Your task to perform on an android device: delete browsing data in the chrome app Image 0: 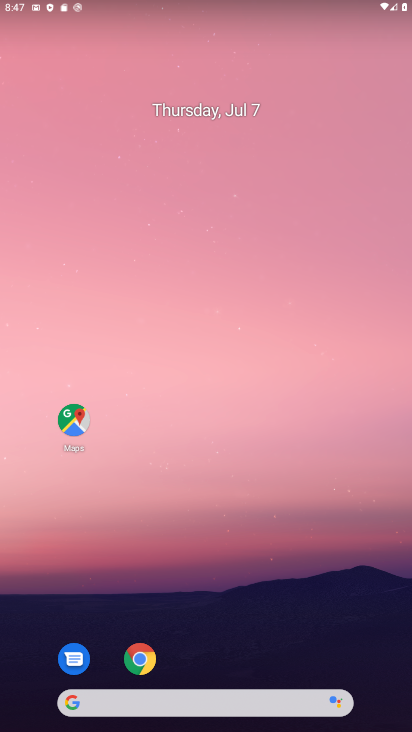
Step 0: drag from (209, 652) to (200, 94)
Your task to perform on an android device: delete browsing data in the chrome app Image 1: 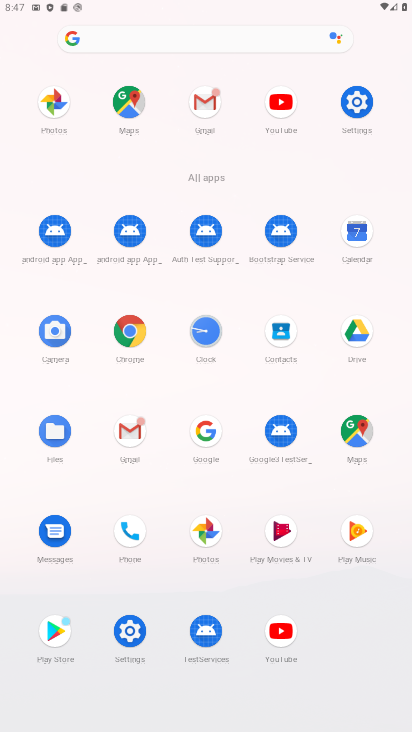
Step 1: click (131, 343)
Your task to perform on an android device: delete browsing data in the chrome app Image 2: 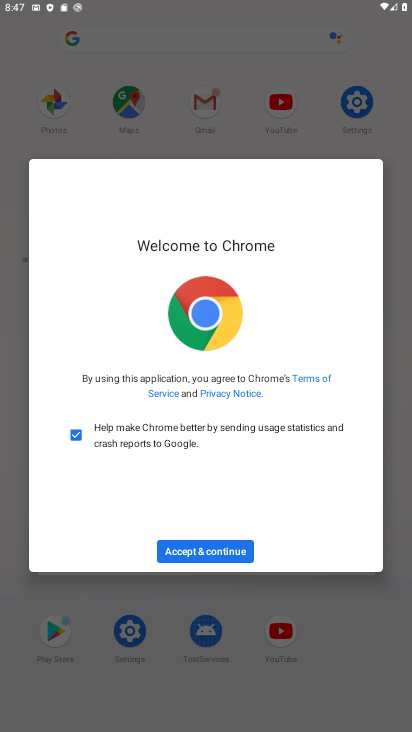
Step 2: click (208, 562)
Your task to perform on an android device: delete browsing data in the chrome app Image 3: 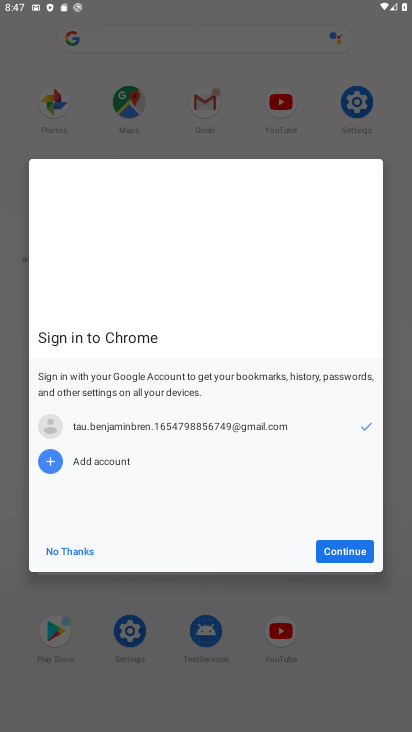
Step 3: click (344, 550)
Your task to perform on an android device: delete browsing data in the chrome app Image 4: 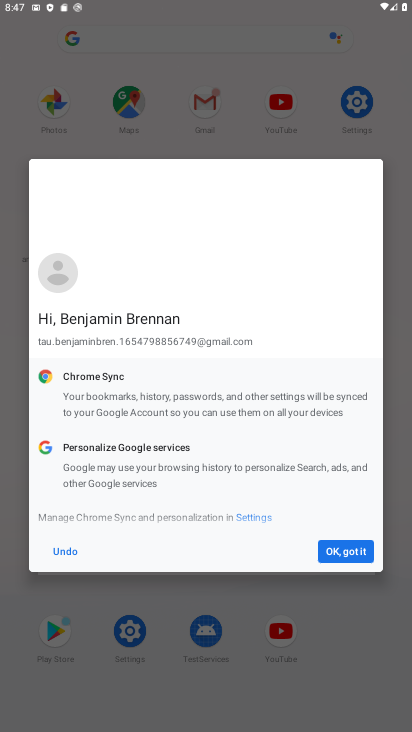
Step 4: click (344, 550)
Your task to perform on an android device: delete browsing data in the chrome app Image 5: 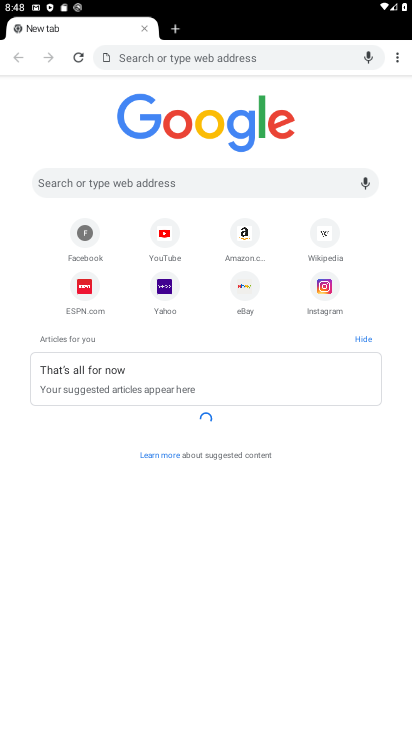
Step 5: click (401, 64)
Your task to perform on an android device: delete browsing data in the chrome app Image 6: 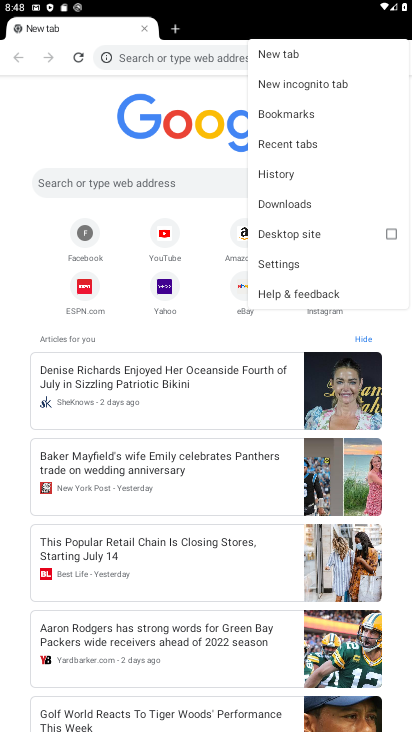
Step 6: click (286, 175)
Your task to perform on an android device: delete browsing data in the chrome app Image 7: 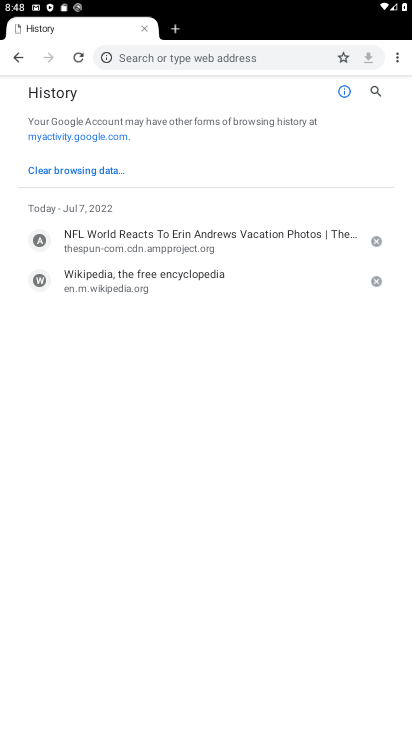
Step 7: click (38, 165)
Your task to perform on an android device: delete browsing data in the chrome app Image 8: 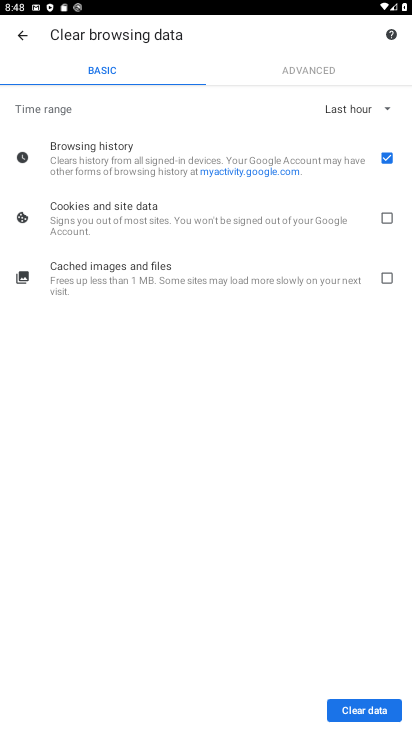
Step 8: click (384, 107)
Your task to perform on an android device: delete browsing data in the chrome app Image 9: 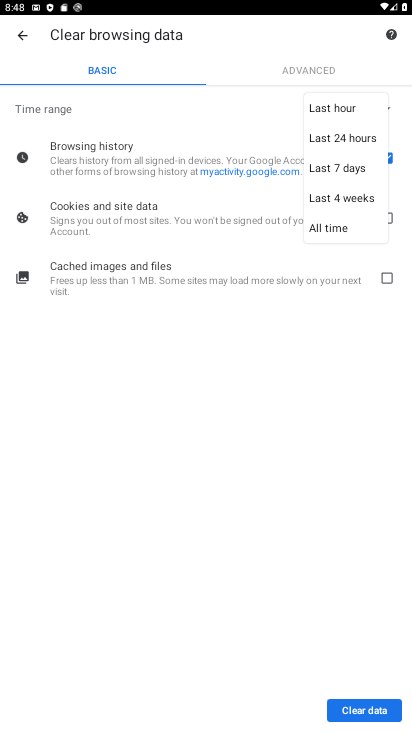
Step 9: click (336, 215)
Your task to perform on an android device: delete browsing data in the chrome app Image 10: 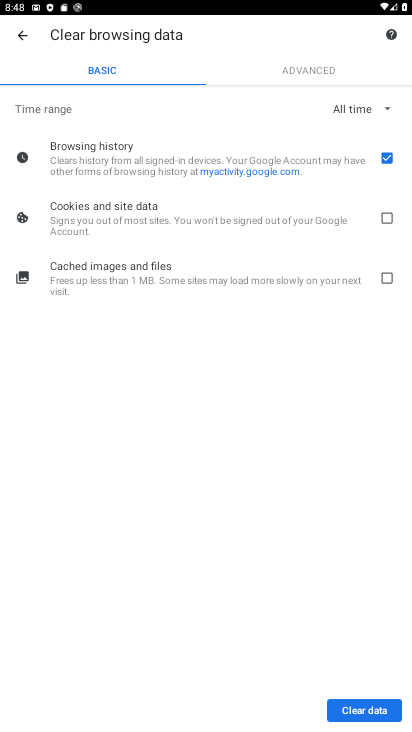
Step 10: click (385, 214)
Your task to perform on an android device: delete browsing data in the chrome app Image 11: 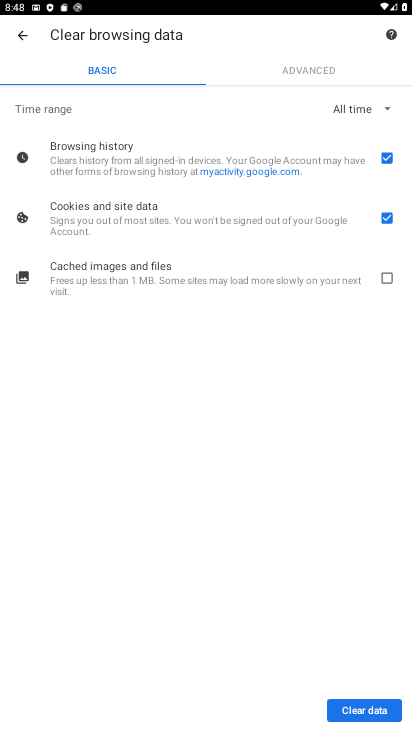
Step 11: click (382, 272)
Your task to perform on an android device: delete browsing data in the chrome app Image 12: 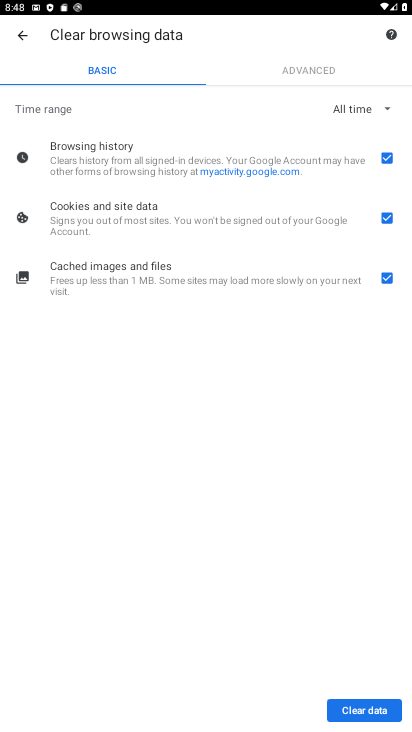
Step 12: click (372, 708)
Your task to perform on an android device: delete browsing data in the chrome app Image 13: 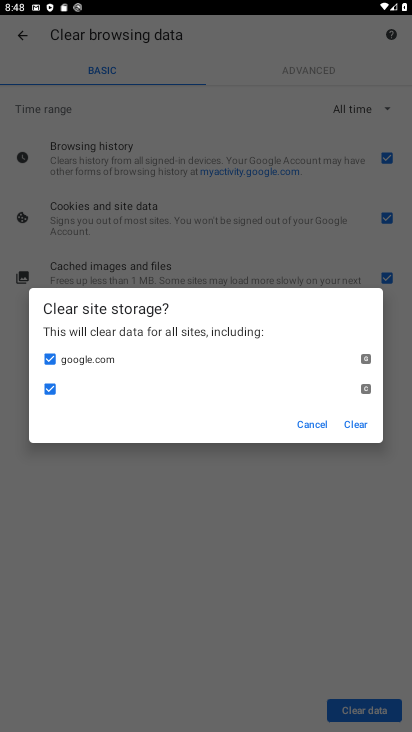
Step 13: click (353, 424)
Your task to perform on an android device: delete browsing data in the chrome app Image 14: 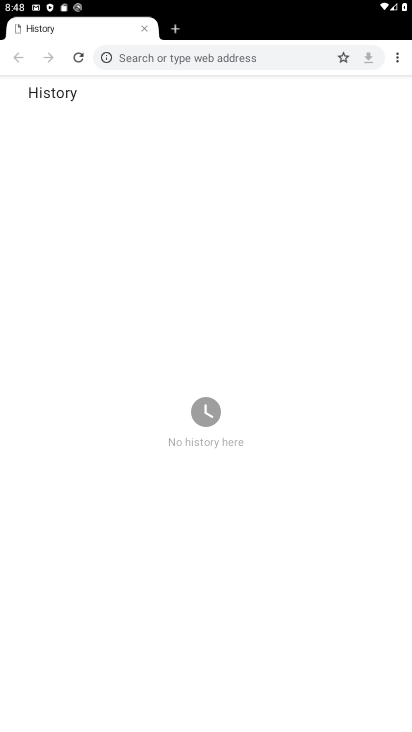
Step 14: task complete